Your task to perform on an android device: open chrome privacy settings Image 0: 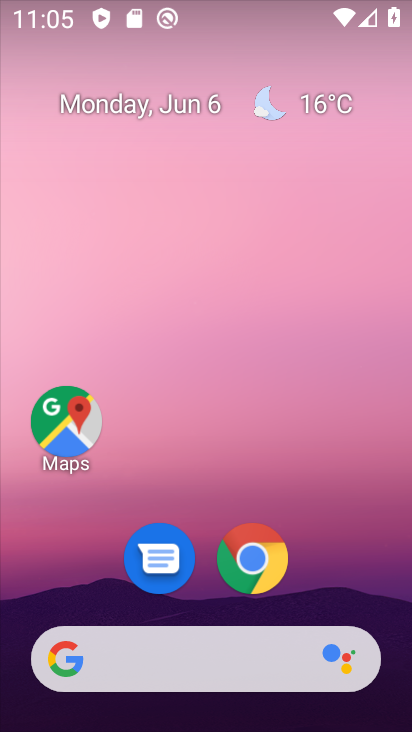
Step 0: click (243, 568)
Your task to perform on an android device: open chrome privacy settings Image 1: 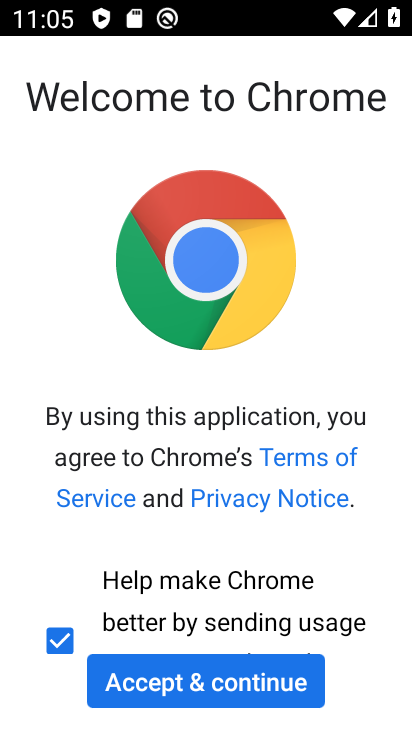
Step 1: click (297, 678)
Your task to perform on an android device: open chrome privacy settings Image 2: 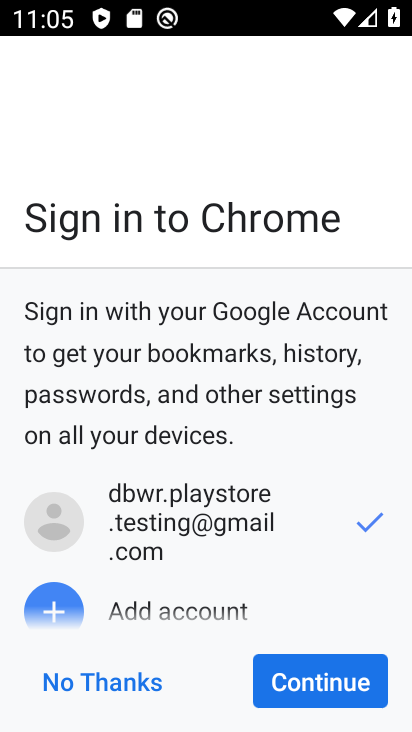
Step 2: click (296, 675)
Your task to perform on an android device: open chrome privacy settings Image 3: 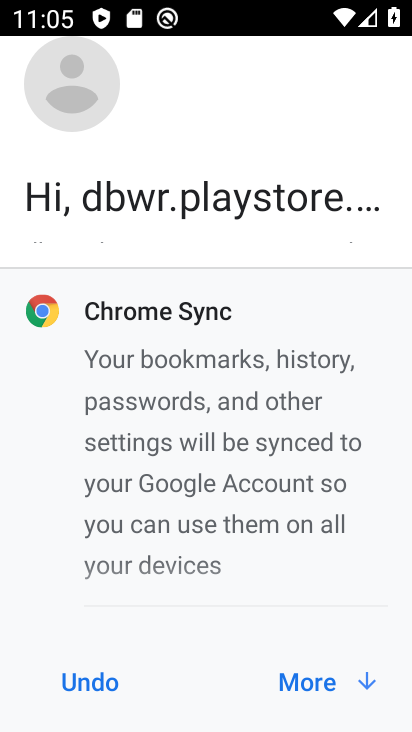
Step 3: click (288, 674)
Your task to perform on an android device: open chrome privacy settings Image 4: 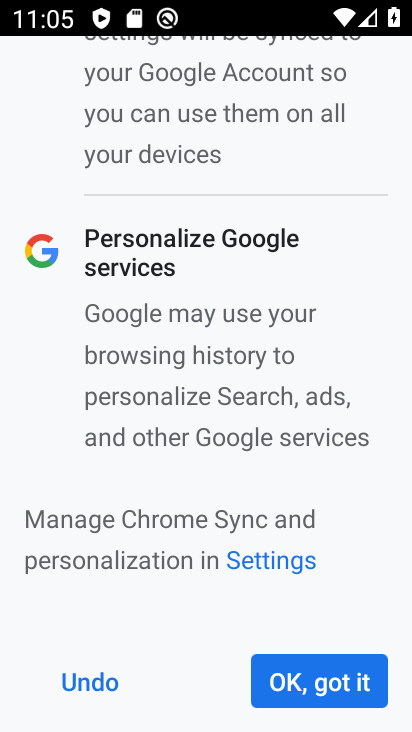
Step 4: click (289, 666)
Your task to perform on an android device: open chrome privacy settings Image 5: 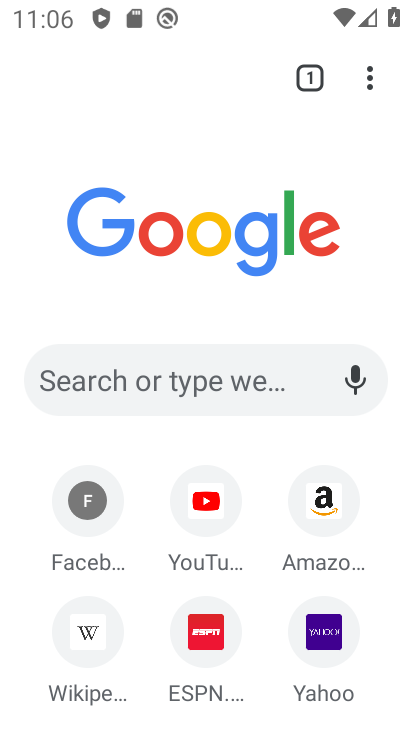
Step 5: click (367, 84)
Your task to perform on an android device: open chrome privacy settings Image 6: 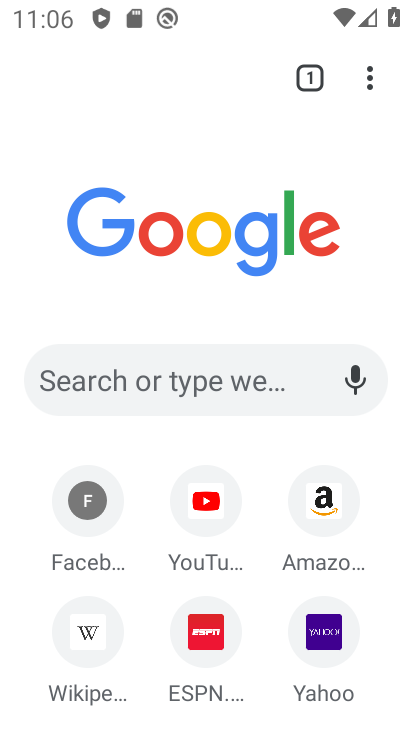
Step 6: click (370, 64)
Your task to perform on an android device: open chrome privacy settings Image 7: 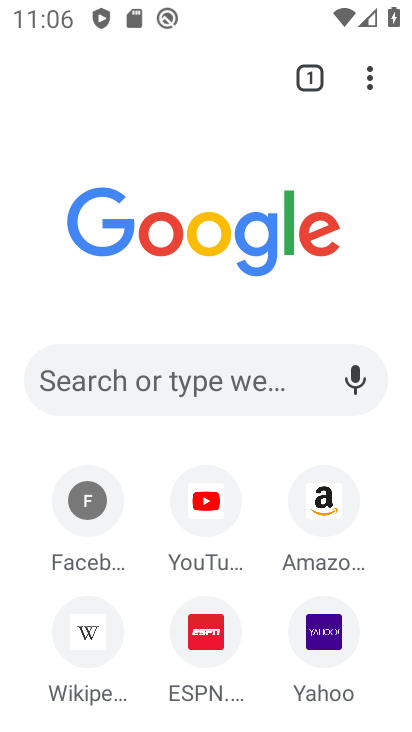
Step 7: click (370, 64)
Your task to perform on an android device: open chrome privacy settings Image 8: 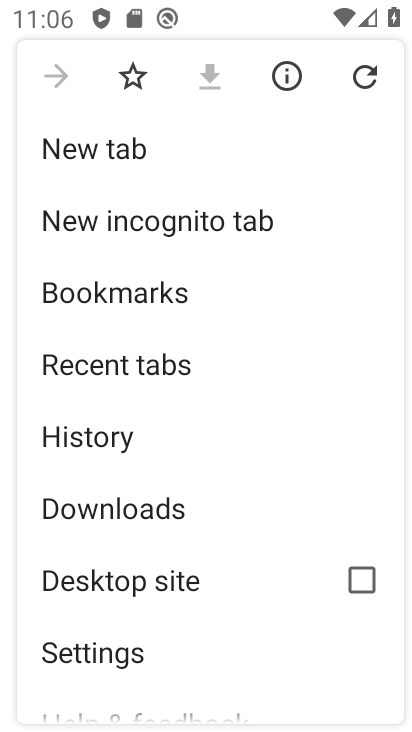
Step 8: drag from (209, 539) to (231, 101)
Your task to perform on an android device: open chrome privacy settings Image 9: 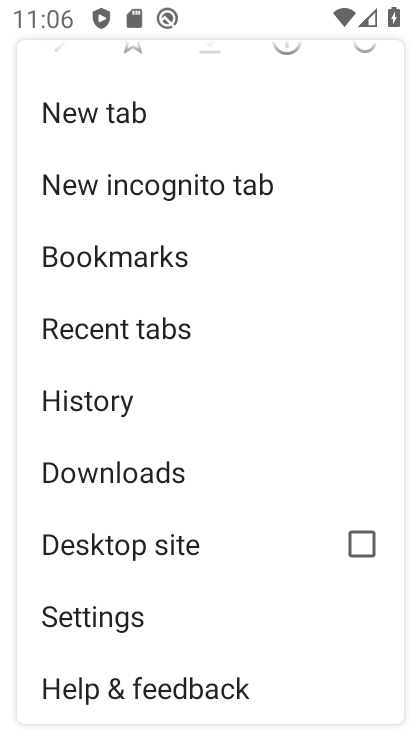
Step 9: click (100, 630)
Your task to perform on an android device: open chrome privacy settings Image 10: 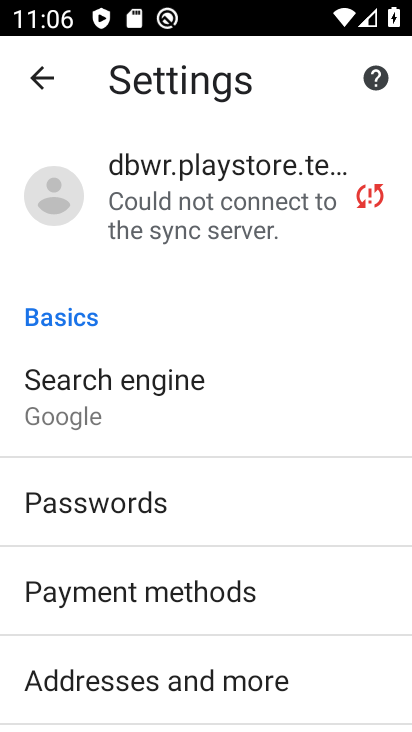
Step 10: drag from (157, 620) to (241, 122)
Your task to perform on an android device: open chrome privacy settings Image 11: 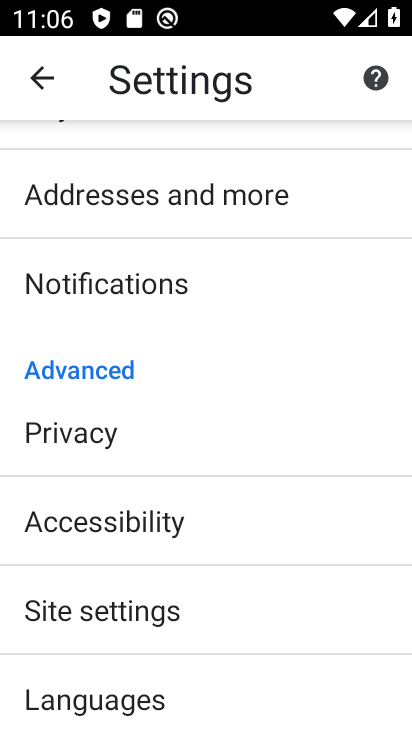
Step 11: click (106, 424)
Your task to perform on an android device: open chrome privacy settings Image 12: 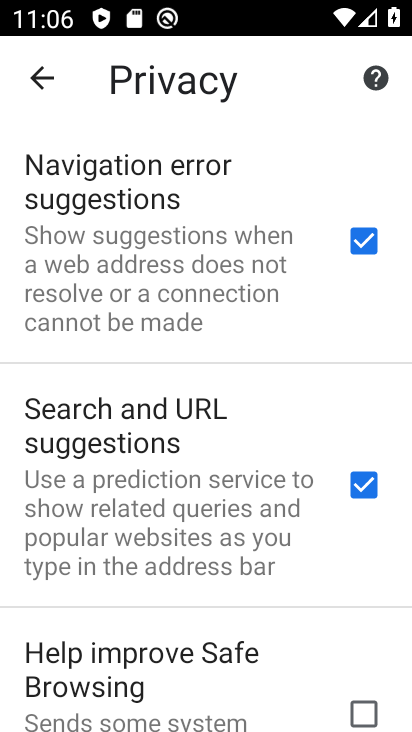
Step 12: task complete